Your task to perform on an android device: Open maps Image 0: 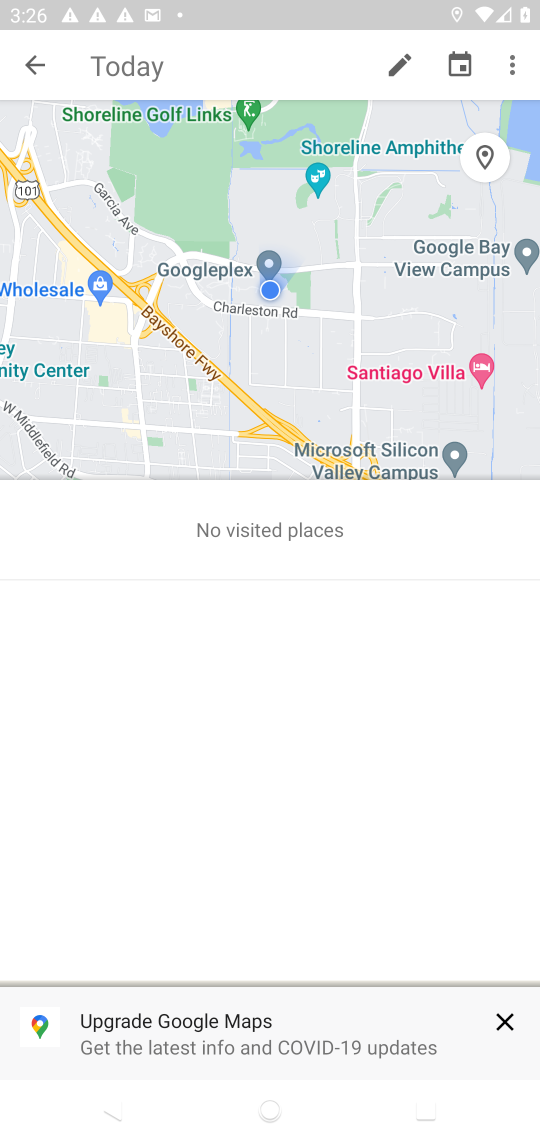
Step 0: click (20, 63)
Your task to perform on an android device: Open maps Image 1: 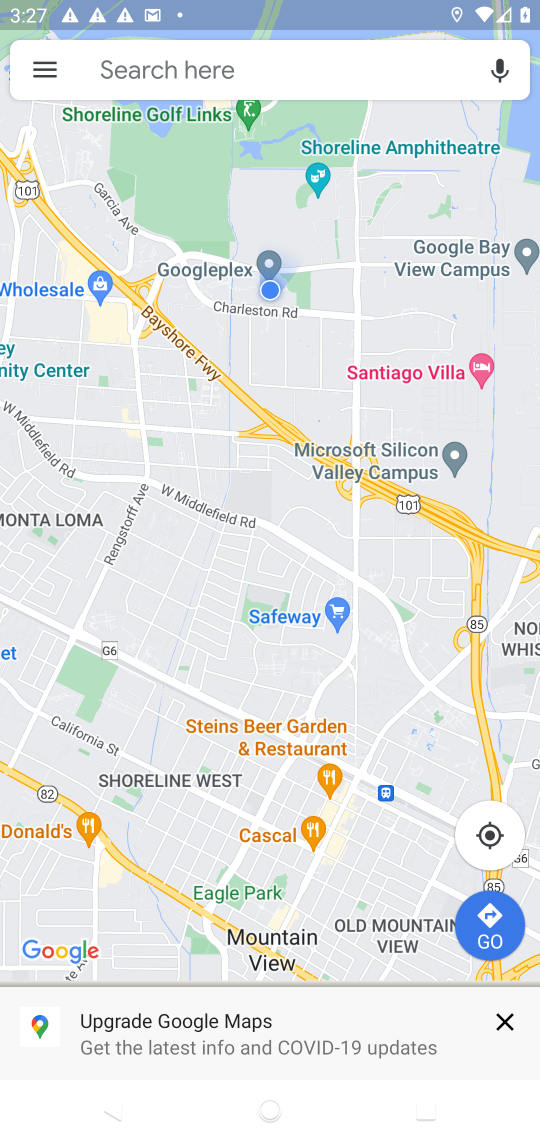
Step 1: task complete